Your task to perform on an android device: Open maps Image 0: 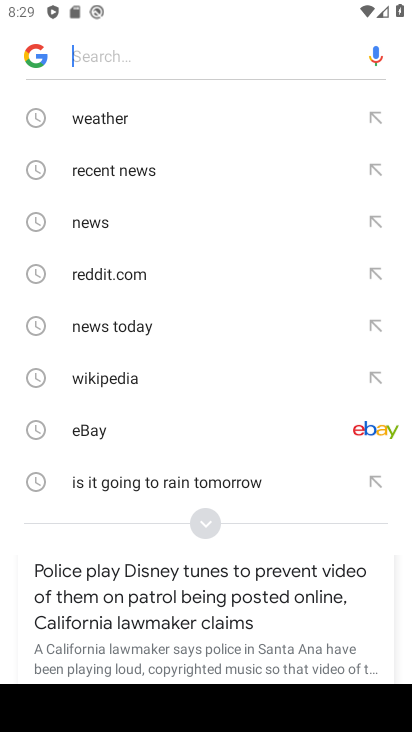
Step 0: press back button
Your task to perform on an android device: Open maps Image 1: 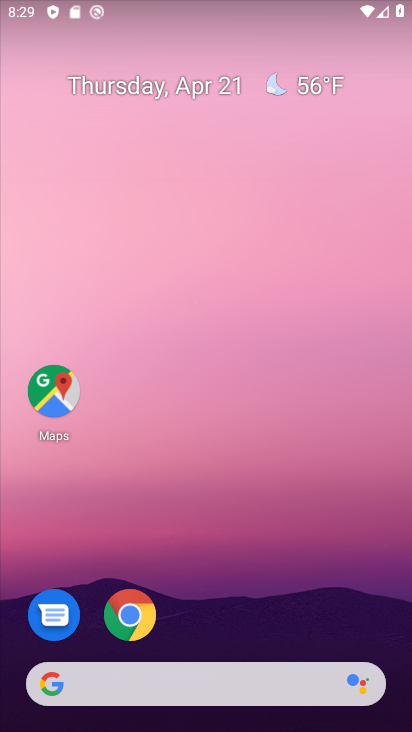
Step 1: click (58, 403)
Your task to perform on an android device: Open maps Image 2: 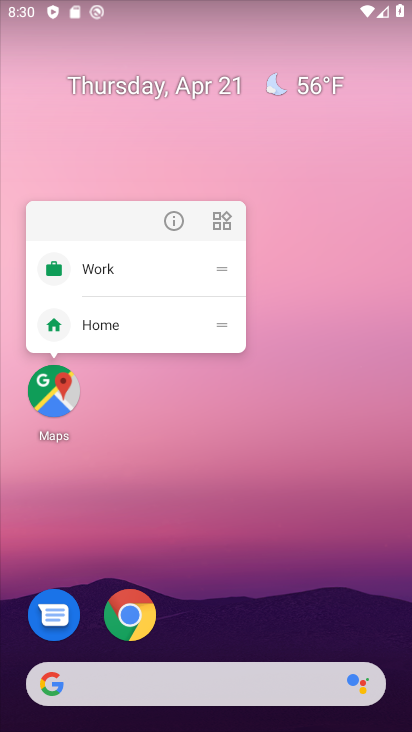
Step 2: click (58, 403)
Your task to perform on an android device: Open maps Image 3: 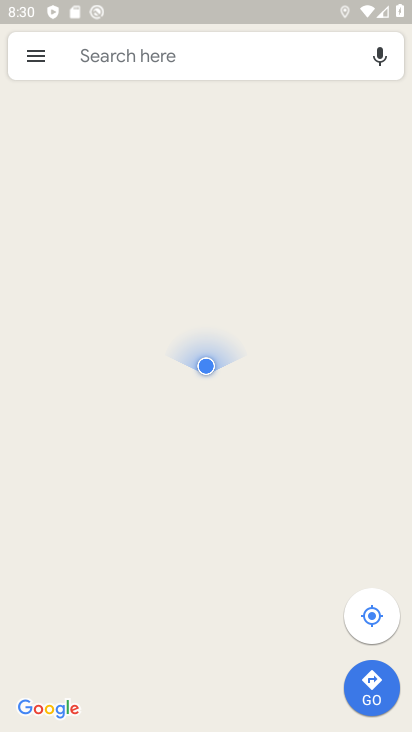
Step 3: task complete